Your task to perform on an android device: toggle javascript in the chrome app Image 0: 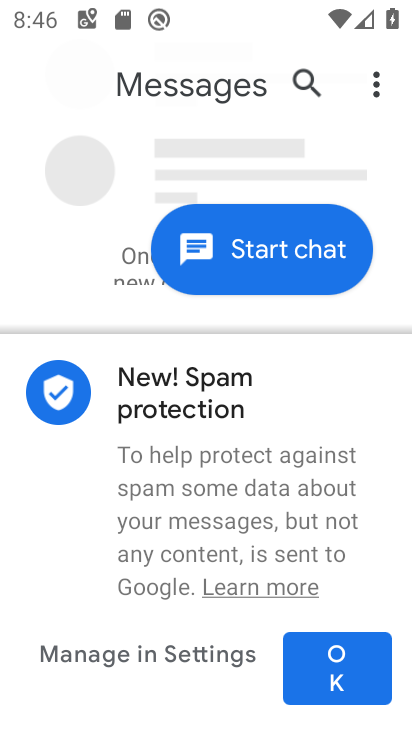
Step 0: press home button
Your task to perform on an android device: toggle javascript in the chrome app Image 1: 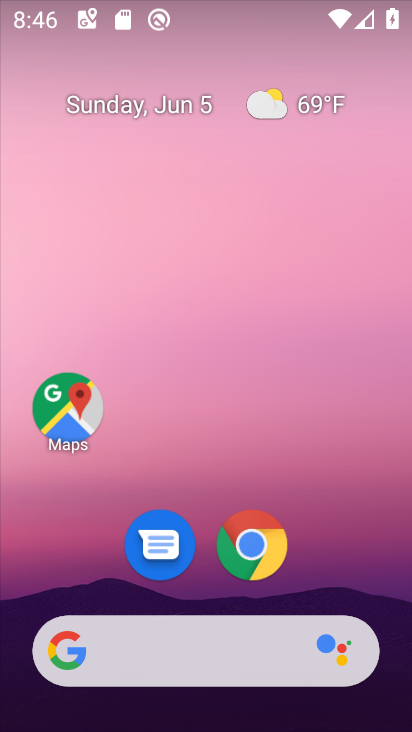
Step 1: drag from (369, 581) to (367, 230)
Your task to perform on an android device: toggle javascript in the chrome app Image 2: 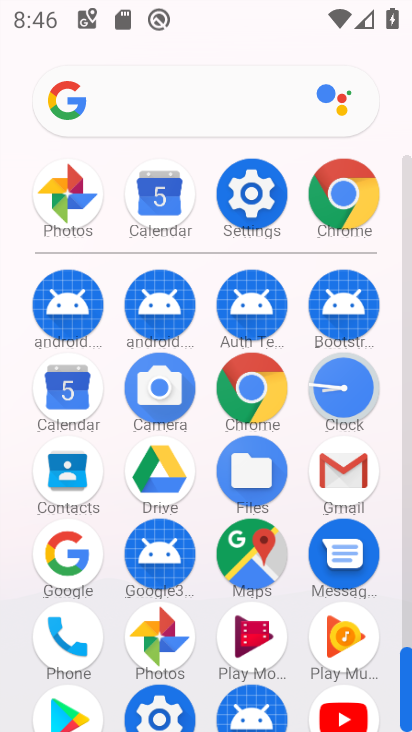
Step 2: click (272, 394)
Your task to perform on an android device: toggle javascript in the chrome app Image 3: 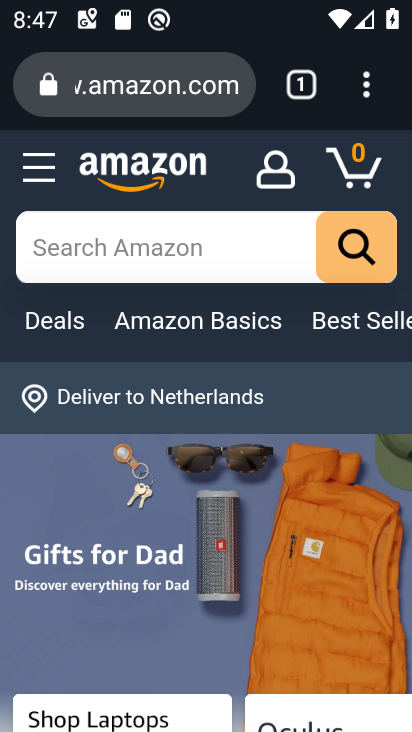
Step 3: click (365, 96)
Your task to perform on an android device: toggle javascript in the chrome app Image 4: 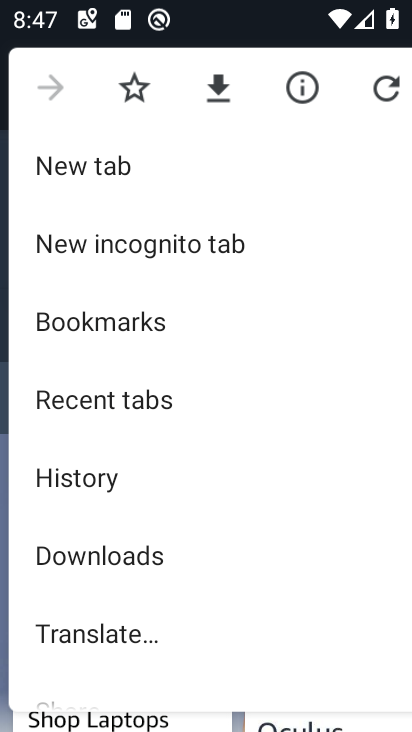
Step 4: drag from (327, 454) to (344, 343)
Your task to perform on an android device: toggle javascript in the chrome app Image 5: 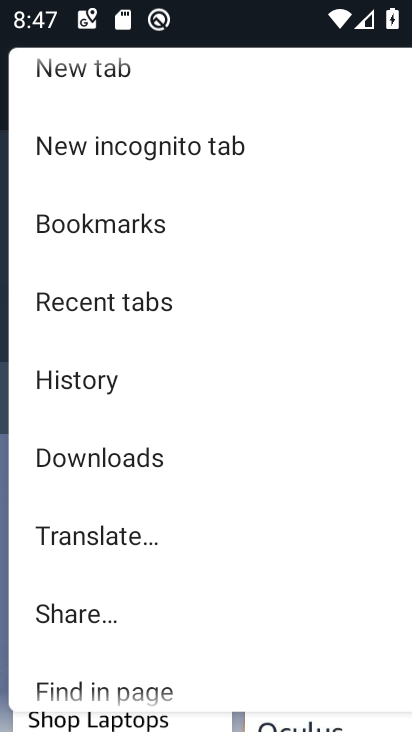
Step 5: drag from (348, 481) to (346, 352)
Your task to perform on an android device: toggle javascript in the chrome app Image 6: 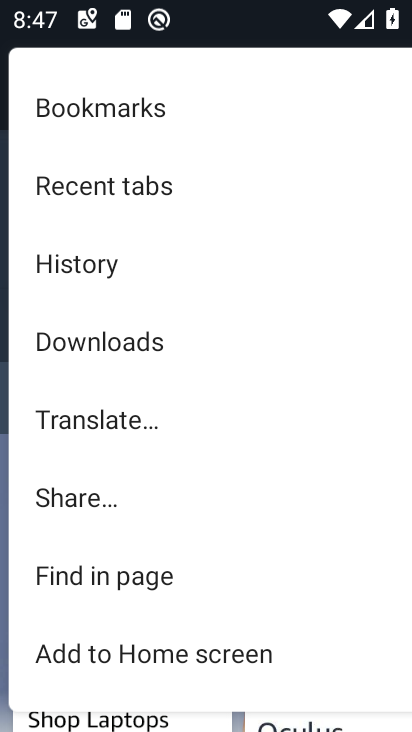
Step 6: drag from (331, 476) to (325, 275)
Your task to perform on an android device: toggle javascript in the chrome app Image 7: 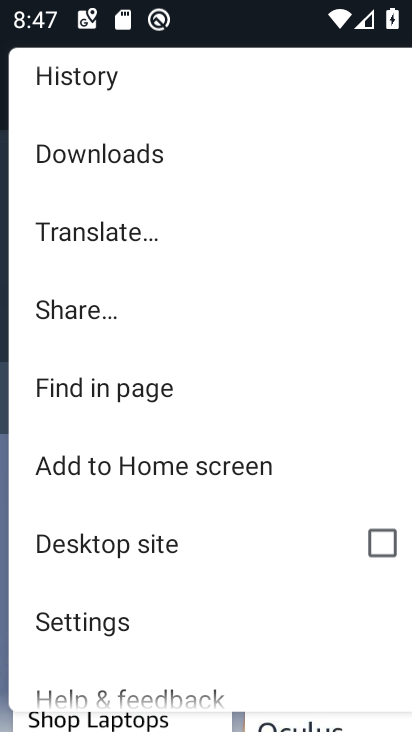
Step 7: drag from (327, 469) to (320, 298)
Your task to perform on an android device: toggle javascript in the chrome app Image 8: 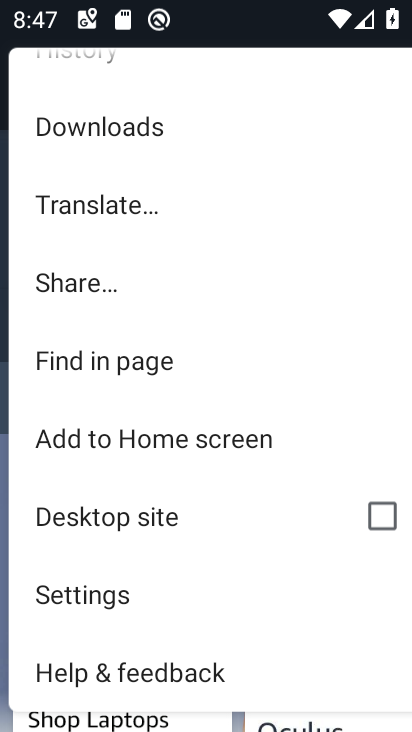
Step 8: click (153, 596)
Your task to perform on an android device: toggle javascript in the chrome app Image 9: 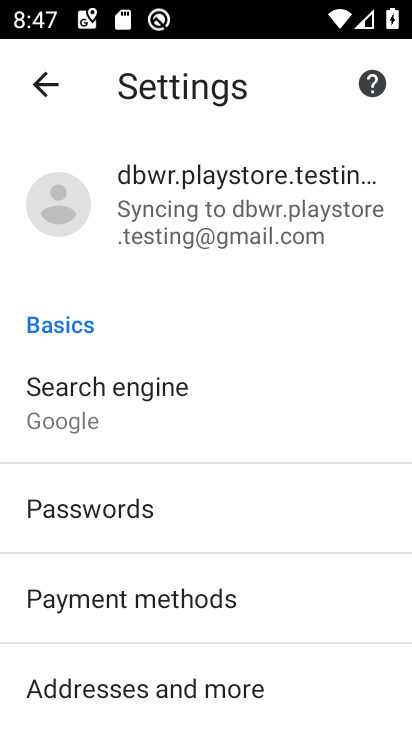
Step 9: drag from (352, 573) to (346, 433)
Your task to perform on an android device: toggle javascript in the chrome app Image 10: 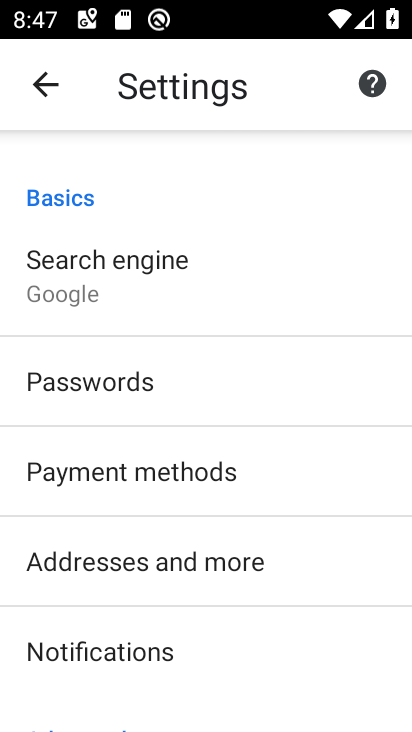
Step 10: drag from (353, 614) to (337, 448)
Your task to perform on an android device: toggle javascript in the chrome app Image 11: 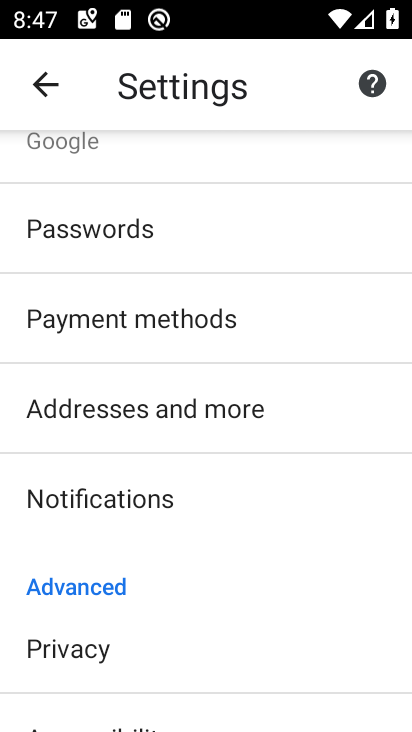
Step 11: drag from (324, 593) to (328, 401)
Your task to perform on an android device: toggle javascript in the chrome app Image 12: 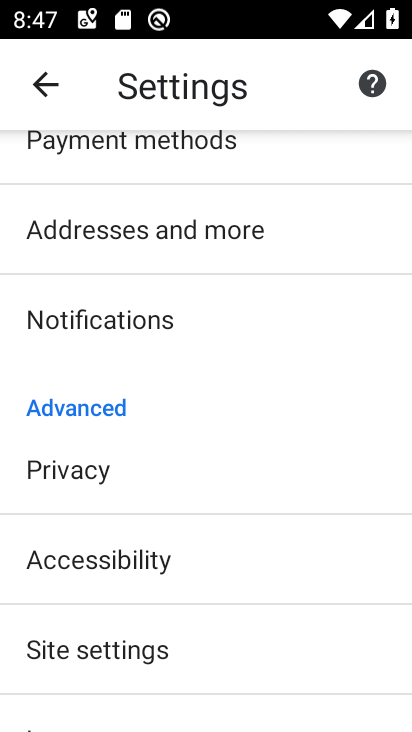
Step 12: drag from (326, 579) to (337, 334)
Your task to perform on an android device: toggle javascript in the chrome app Image 13: 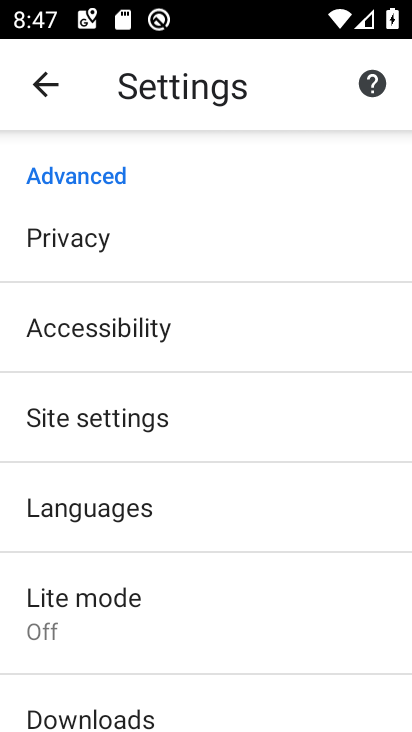
Step 13: click (248, 448)
Your task to perform on an android device: toggle javascript in the chrome app Image 14: 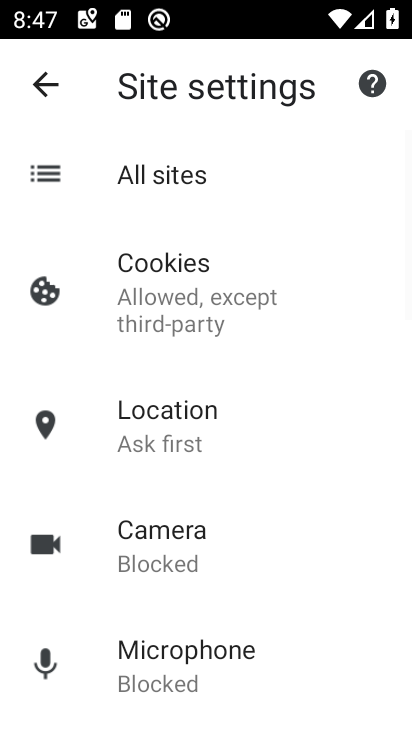
Step 14: drag from (317, 521) to (326, 399)
Your task to perform on an android device: toggle javascript in the chrome app Image 15: 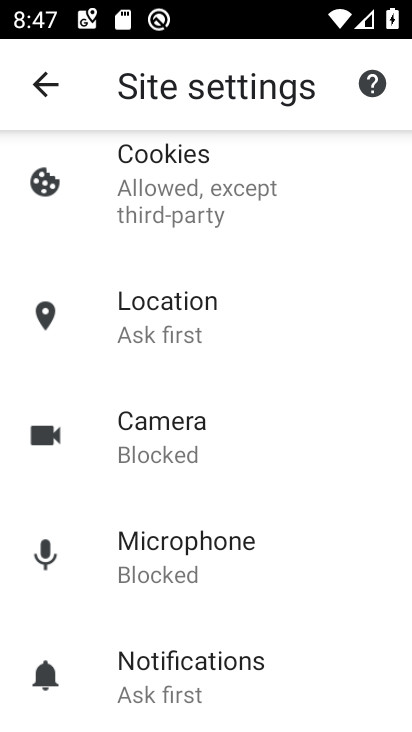
Step 15: drag from (345, 563) to (338, 406)
Your task to perform on an android device: toggle javascript in the chrome app Image 16: 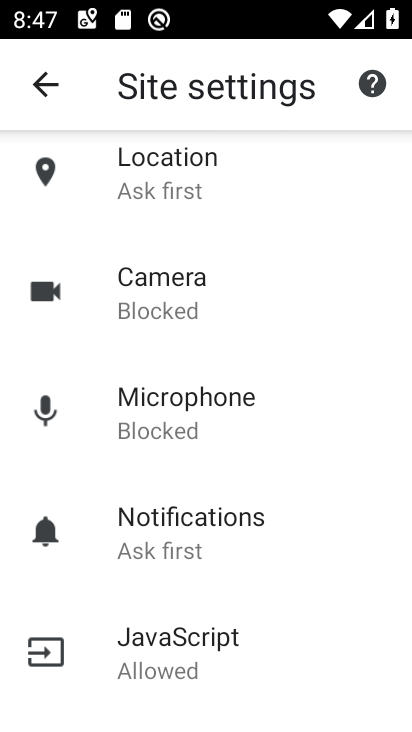
Step 16: drag from (336, 575) to (339, 409)
Your task to perform on an android device: toggle javascript in the chrome app Image 17: 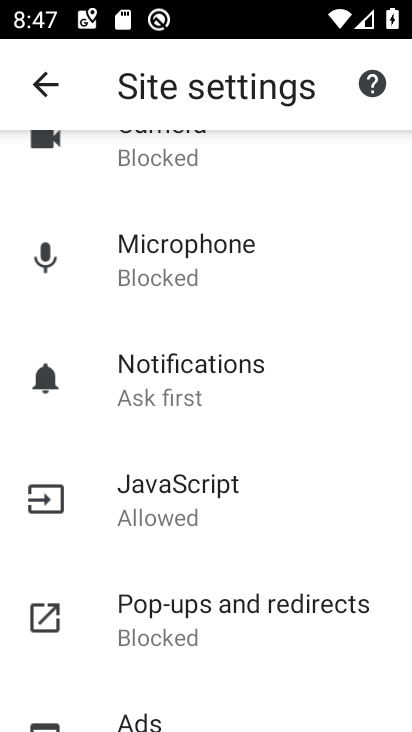
Step 17: click (292, 503)
Your task to perform on an android device: toggle javascript in the chrome app Image 18: 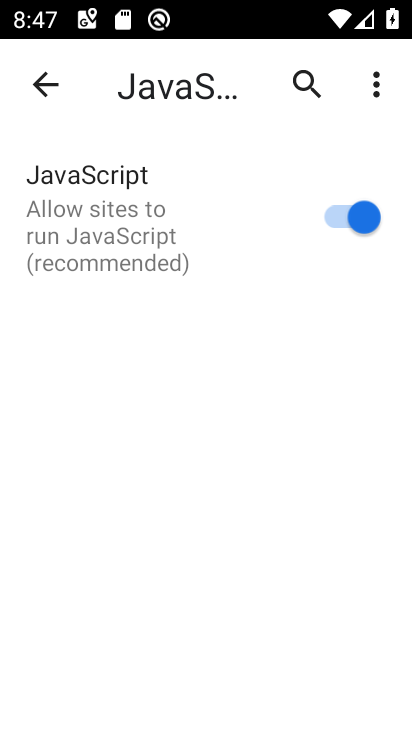
Step 18: click (358, 218)
Your task to perform on an android device: toggle javascript in the chrome app Image 19: 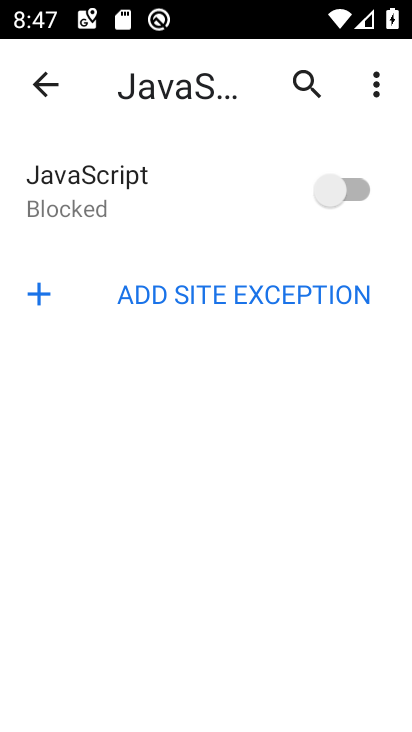
Step 19: task complete